Your task to perform on an android device: change the clock display to digital Image 0: 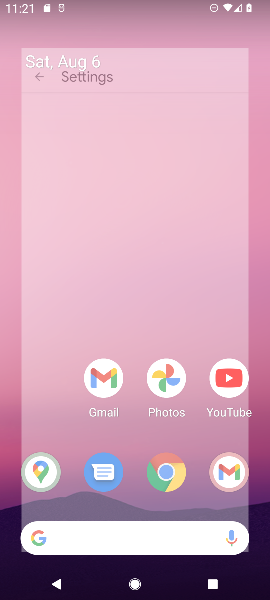
Step 0: press back button
Your task to perform on an android device: change the clock display to digital Image 1: 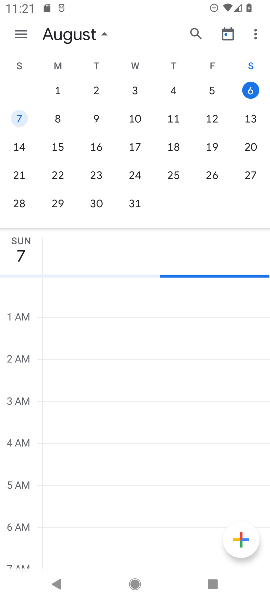
Step 1: press home button
Your task to perform on an android device: change the clock display to digital Image 2: 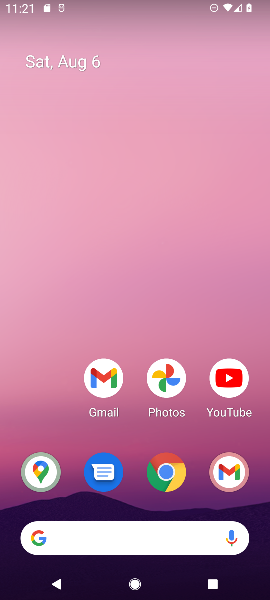
Step 2: drag from (161, 470) to (101, 215)
Your task to perform on an android device: change the clock display to digital Image 3: 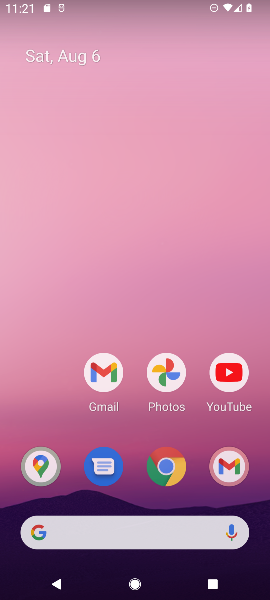
Step 3: drag from (165, 402) to (165, 145)
Your task to perform on an android device: change the clock display to digital Image 4: 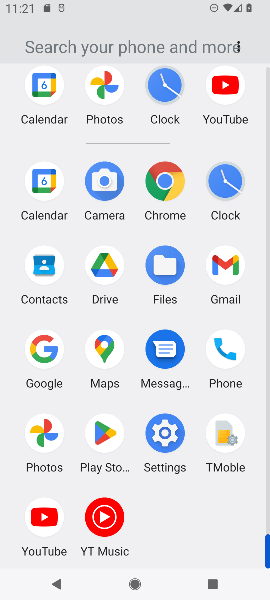
Step 4: click (226, 182)
Your task to perform on an android device: change the clock display to digital Image 5: 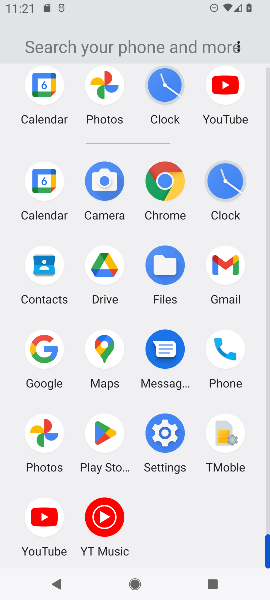
Step 5: click (226, 182)
Your task to perform on an android device: change the clock display to digital Image 6: 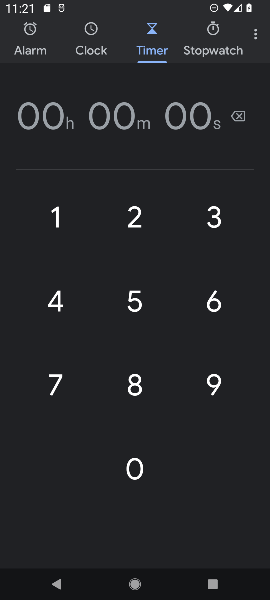
Step 6: drag from (244, 32) to (185, 179)
Your task to perform on an android device: change the clock display to digital Image 7: 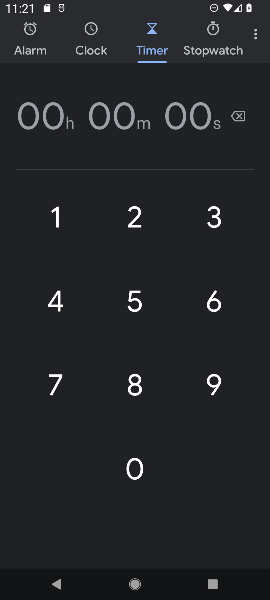
Step 7: drag from (249, 39) to (167, 63)
Your task to perform on an android device: change the clock display to digital Image 8: 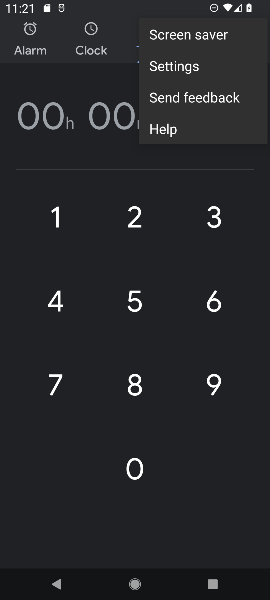
Step 8: click (166, 63)
Your task to perform on an android device: change the clock display to digital Image 9: 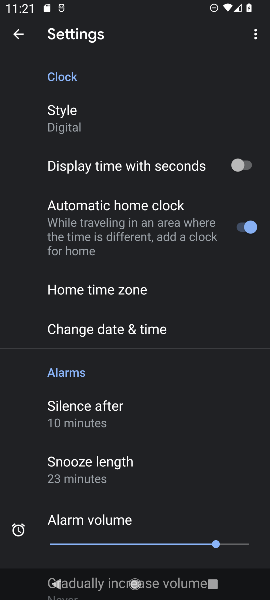
Step 9: task complete